Your task to perform on an android device: What's the weather going to be this weekend? Image 0: 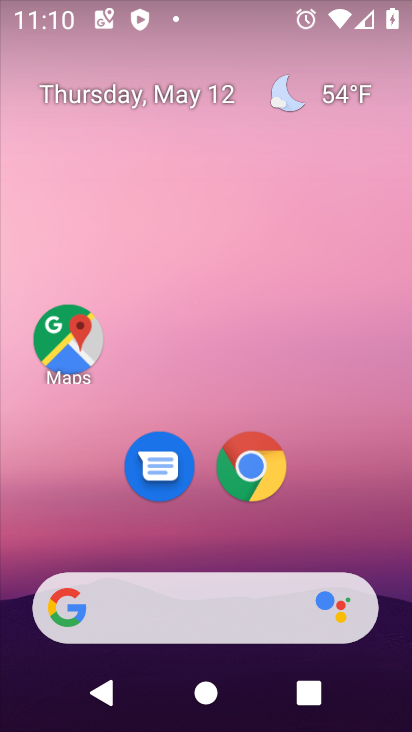
Step 0: drag from (375, 538) to (379, 171)
Your task to perform on an android device: What's the weather going to be this weekend? Image 1: 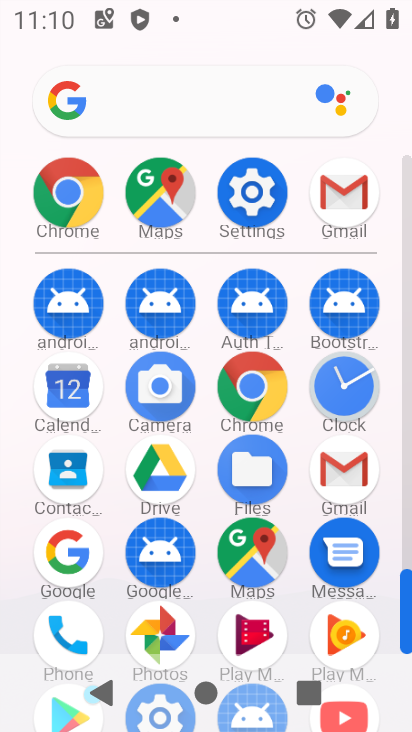
Step 1: click (272, 400)
Your task to perform on an android device: What's the weather going to be this weekend? Image 2: 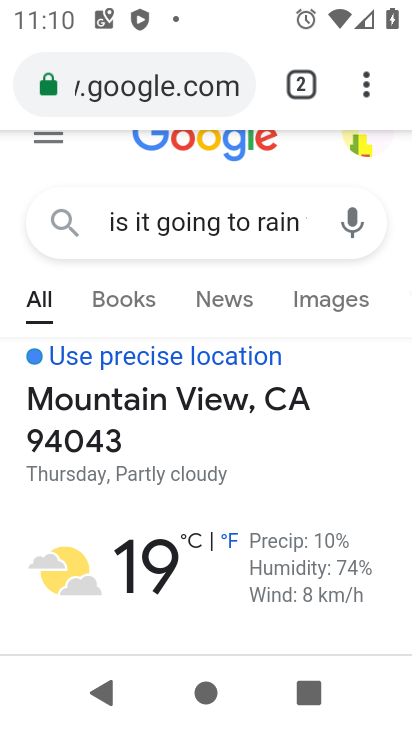
Step 2: click (164, 99)
Your task to perform on an android device: What's the weather going to be this weekend? Image 3: 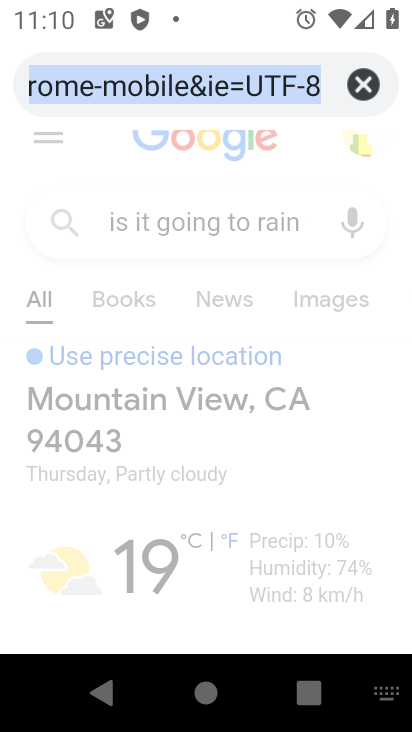
Step 3: click (358, 86)
Your task to perform on an android device: What's the weather going to be this weekend? Image 4: 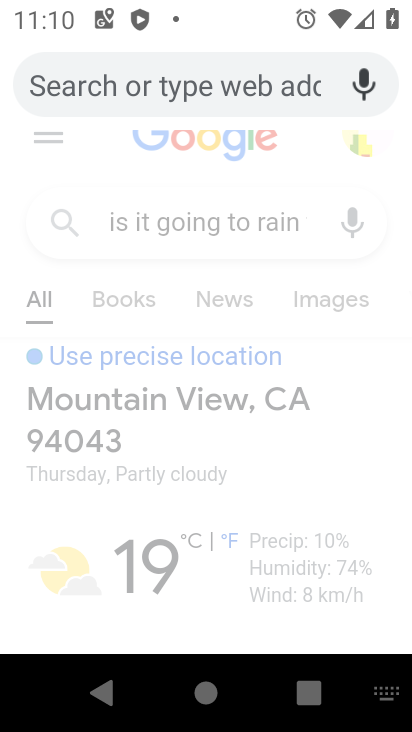
Step 4: type "what's the weather going to be this weekend"
Your task to perform on an android device: What's the weather going to be this weekend? Image 5: 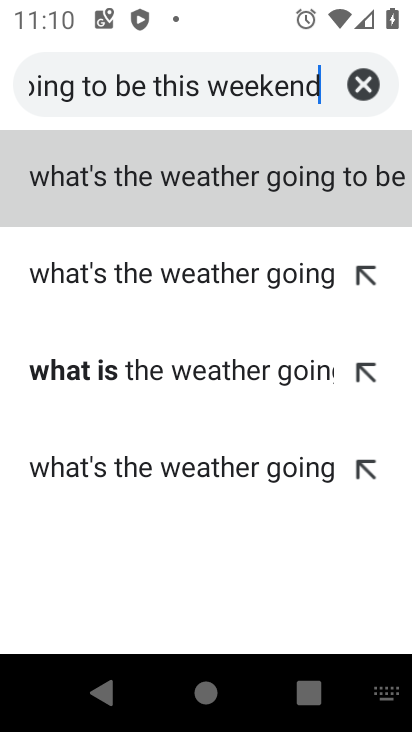
Step 5: click (206, 184)
Your task to perform on an android device: What's the weather going to be this weekend? Image 6: 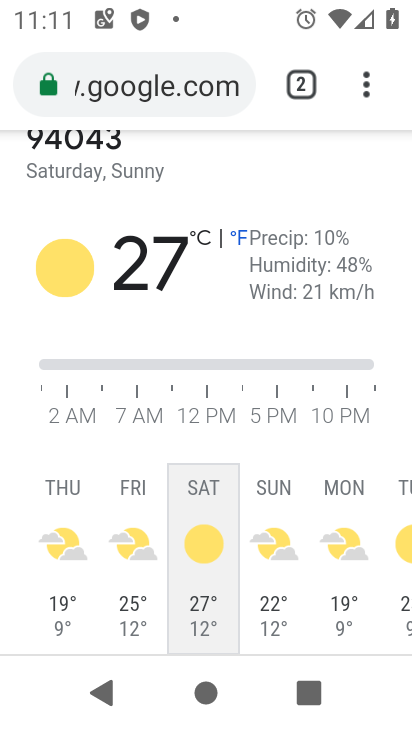
Step 6: task complete